Your task to perform on an android device: see sites visited before in the chrome app Image 0: 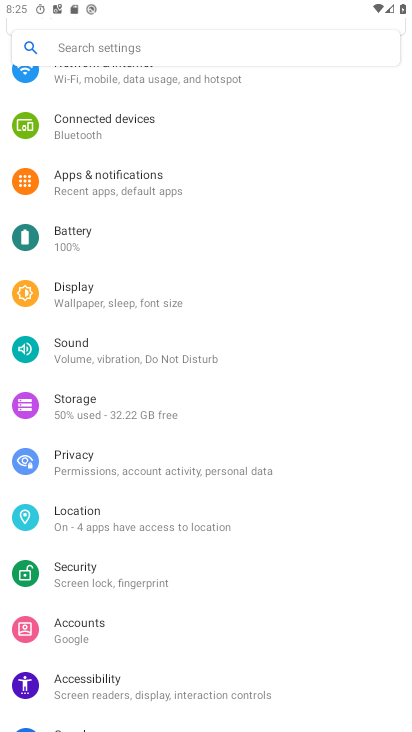
Step 0: press home button
Your task to perform on an android device: see sites visited before in the chrome app Image 1: 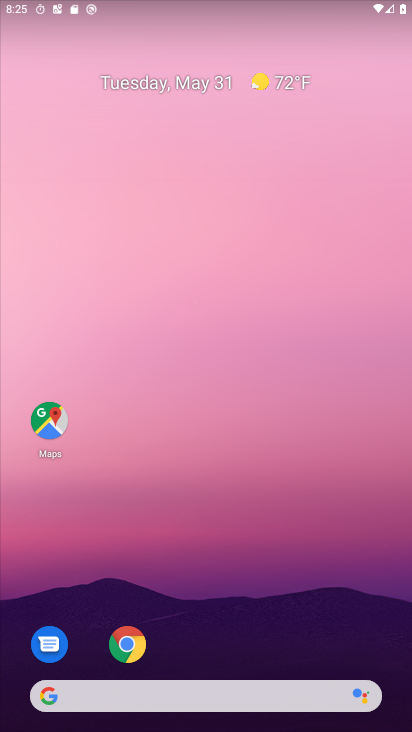
Step 1: drag from (204, 662) to (223, 89)
Your task to perform on an android device: see sites visited before in the chrome app Image 2: 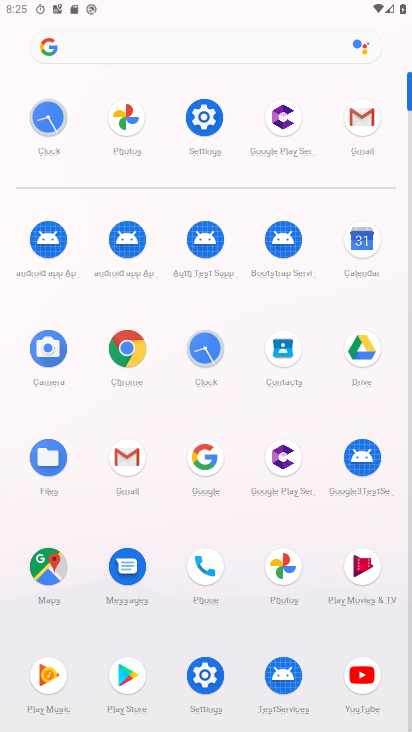
Step 2: click (124, 347)
Your task to perform on an android device: see sites visited before in the chrome app Image 3: 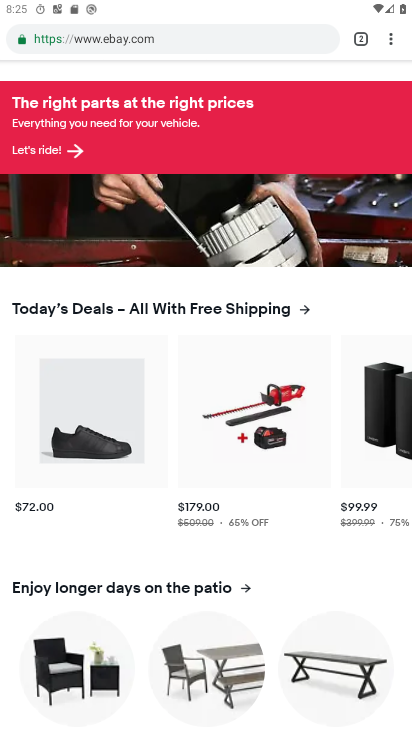
Step 3: click (389, 35)
Your task to perform on an android device: see sites visited before in the chrome app Image 4: 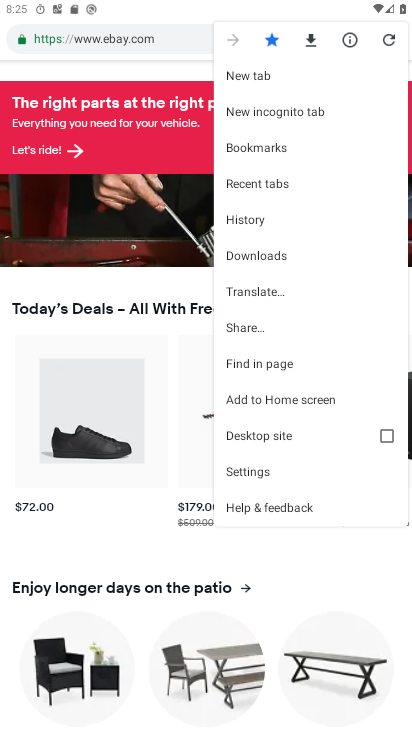
Step 4: click (275, 220)
Your task to perform on an android device: see sites visited before in the chrome app Image 5: 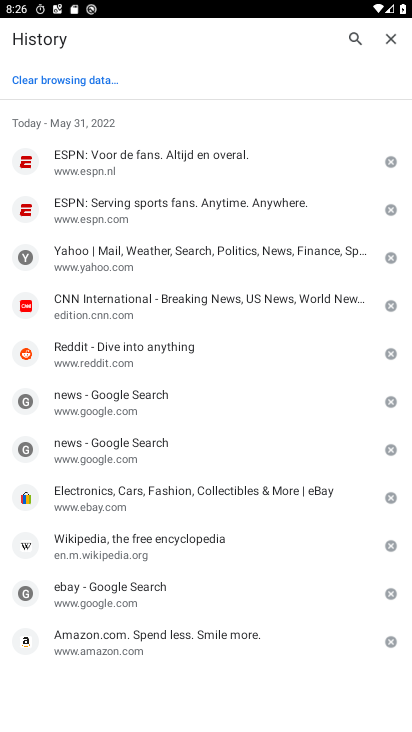
Step 5: task complete